Your task to perform on an android device: move a message to another label in the gmail app Image 0: 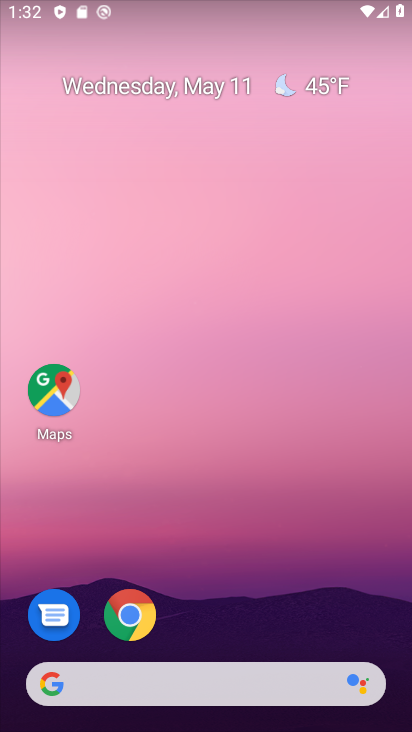
Step 0: drag from (229, 587) to (237, 209)
Your task to perform on an android device: move a message to another label in the gmail app Image 1: 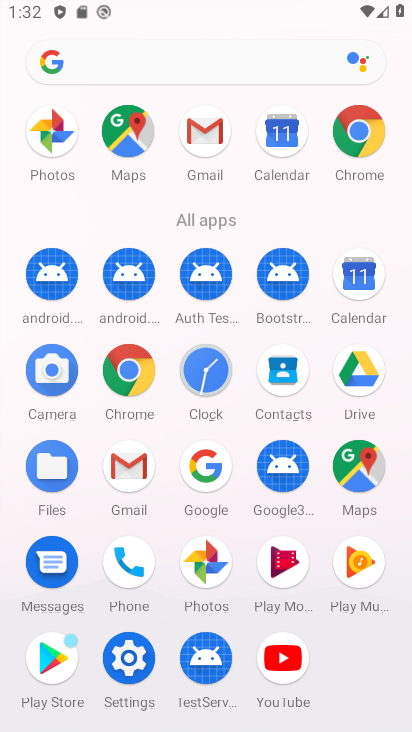
Step 1: click (136, 471)
Your task to perform on an android device: move a message to another label in the gmail app Image 2: 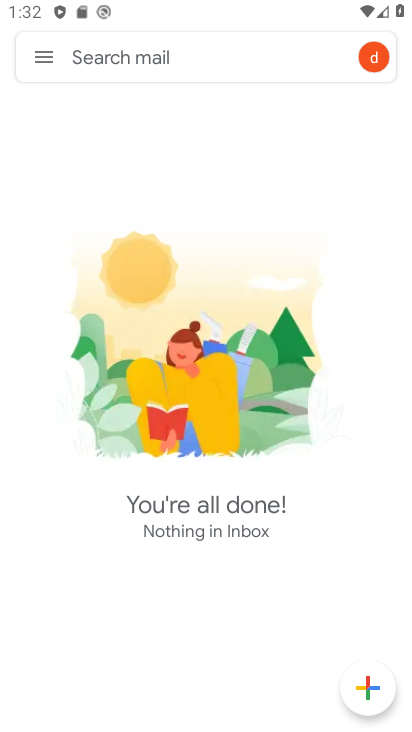
Step 2: click (49, 55)
Your task to perform on an android device: move a message to another label in the gmail app Image 3: 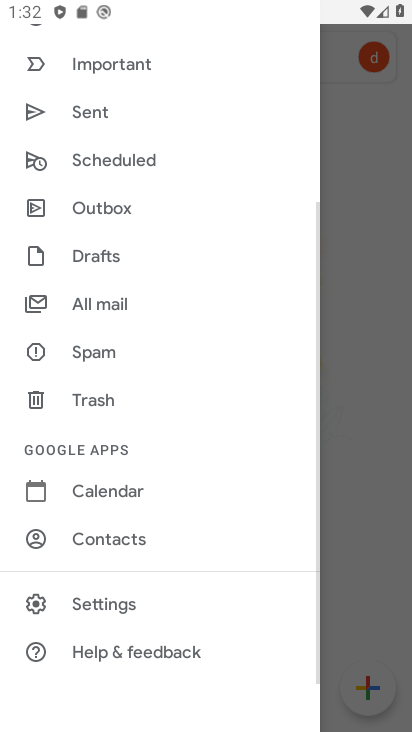
Step 3: drag from (217, 147) to (174, 572)
Your task to perform on an android device: move a message to another label in the gmail app Image 4: 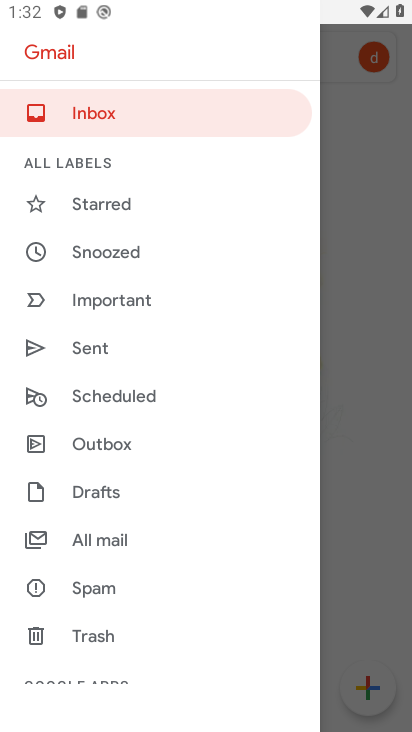
Step 4: drag from (209, 557) to (208, 358)
Your task to perform on an android device: move a message to another label in the gmail app Image 5: 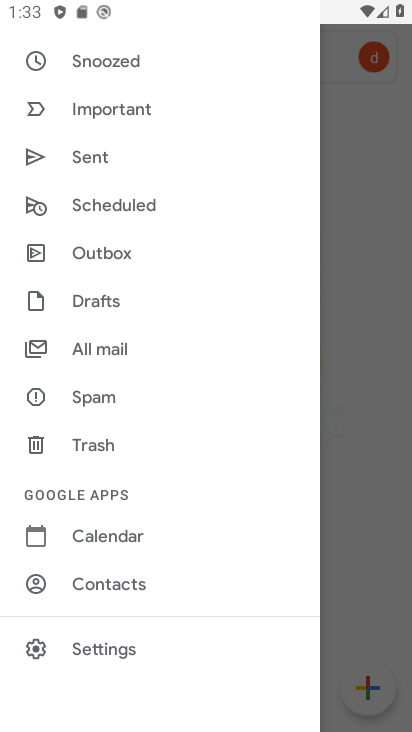
Step 5: click (95, 337)
Your task to perform on an android device: move a message to another label in the gmail app Image 6: 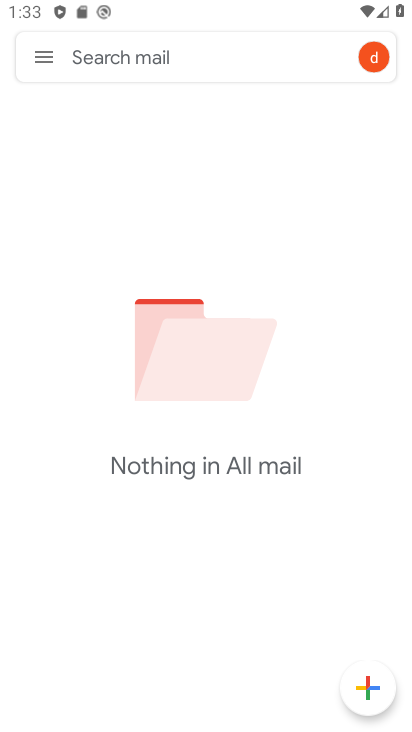
Step 6: task complete